Your task to perform on an android device: Go to CNN.com Image 0: 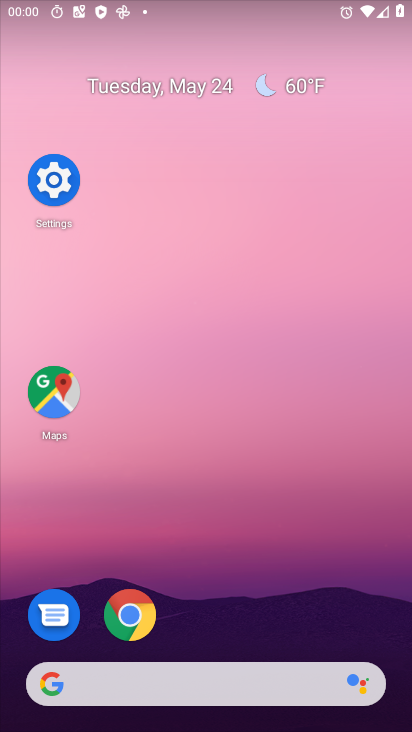
Step 0: drag from (181, 483) to (210, 87)
Your task to perform on an android device: Go to CNN.com Image 1: 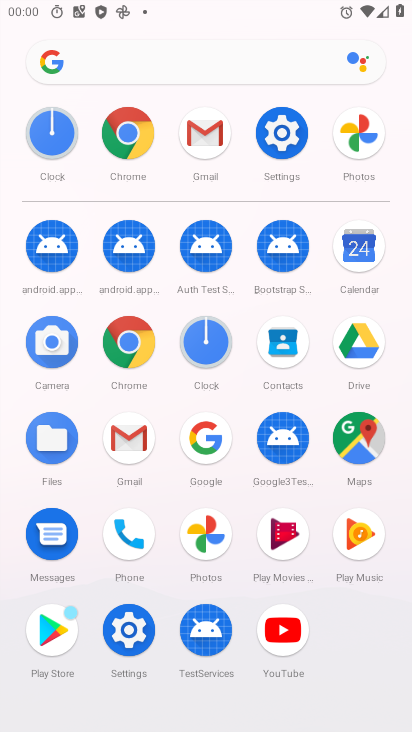
Step 1: click (207, 438)
Your task to perform on an android device: Go to CNN.com Image 2: 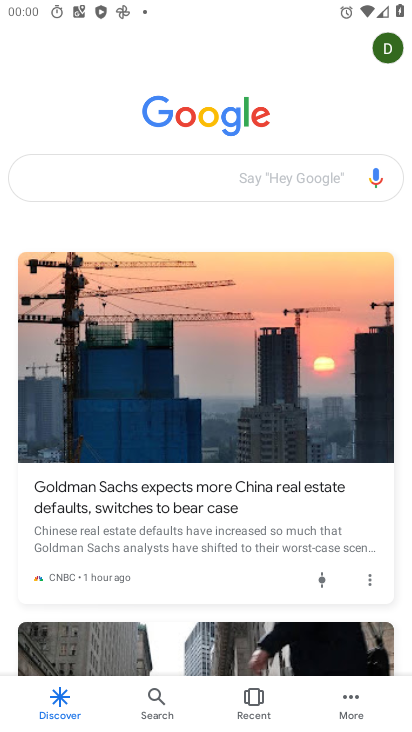
Step 2: click (167, 179)
Your task to perform on an android device: Go to CNN.com Image 3: 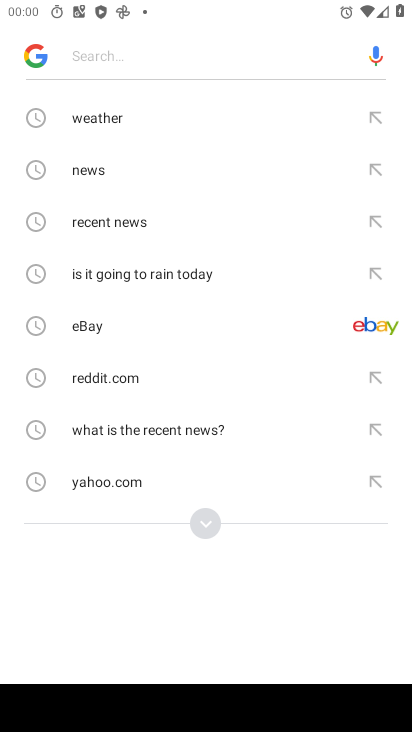
Step 3: type "cnn.com"
Your task to perform on an android device: Go to CNN.com Image 4: 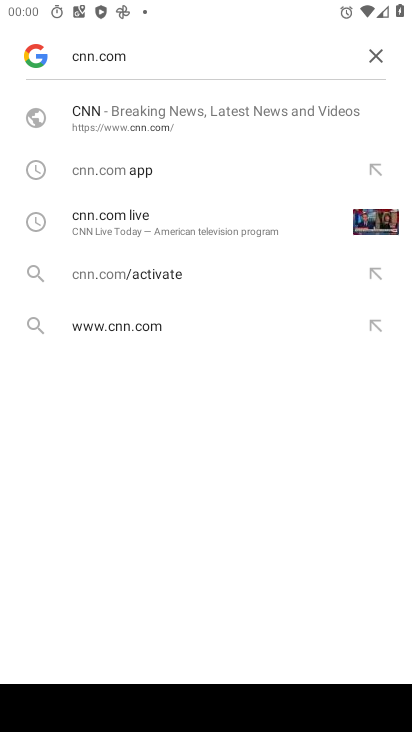
Step 4: click (173, 114)
Your task to perform on an android device: Go to CNN.com Image 5: 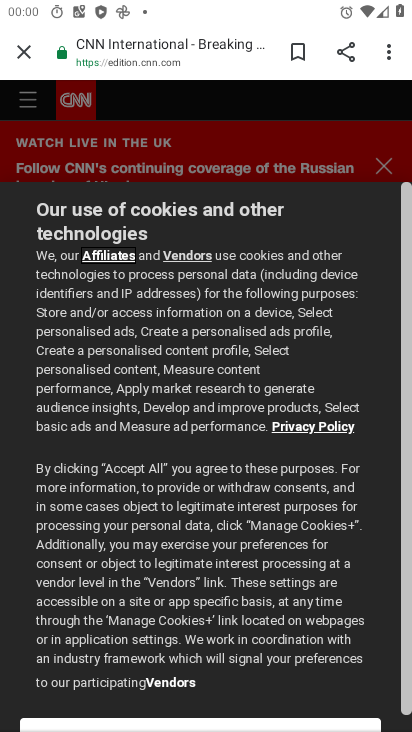
Step 5: task complete